Your task to perform on an android device: toggle javascript in the chrome app Image 0: 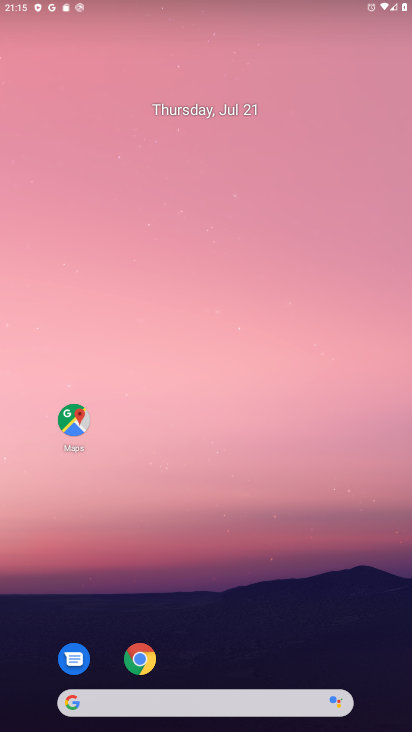
Step 0: press home button
Your task to perform on an android device: toggle javascript in the chrome app Image 1: 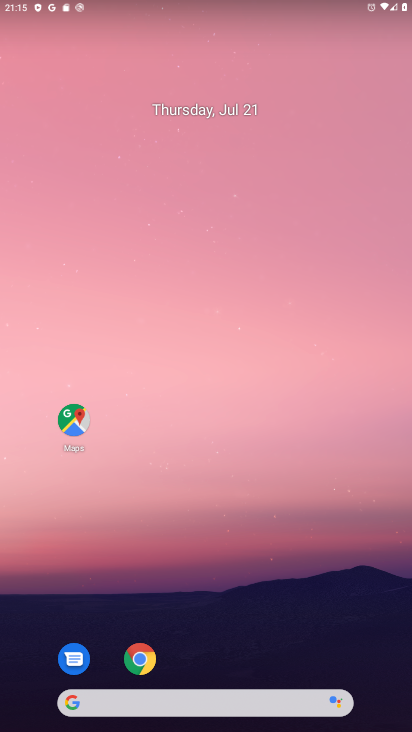
Step 1: drag from (202, 585) to (255, 295)
Your task to perform on an android device: toggle javascript in the chrome app Image 2: 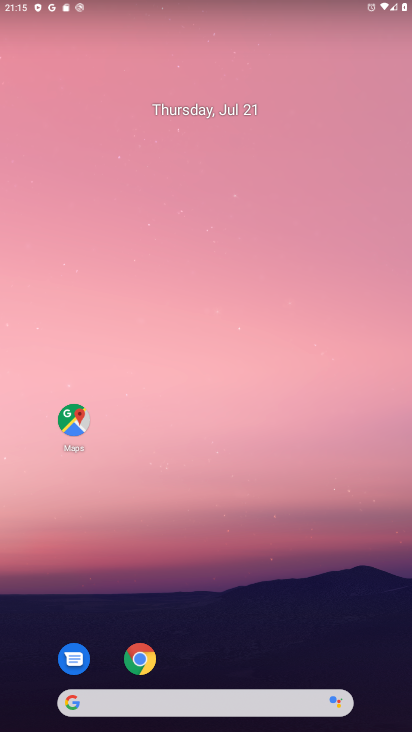
Step 2: click (135, 664)
Your task to perform on an android device: toggle javascript in the chrome app Image 3: 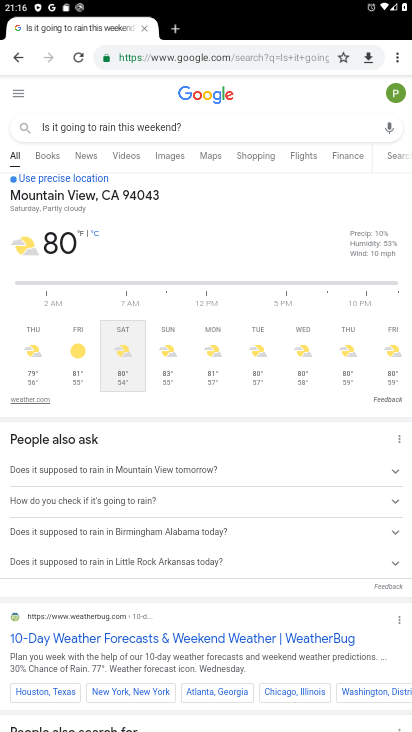
Step 3: task complete